Your task to perform on an android device: Go to privacy settings Image 0: 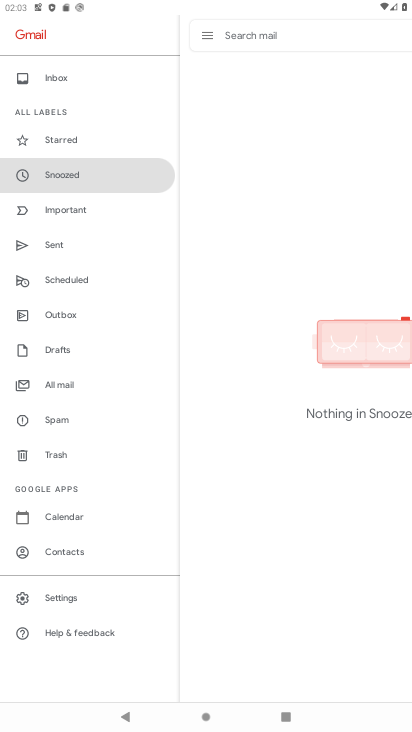
Step 0: press home button
Your task to perform on an android device: Go to privacy settings Image 1: 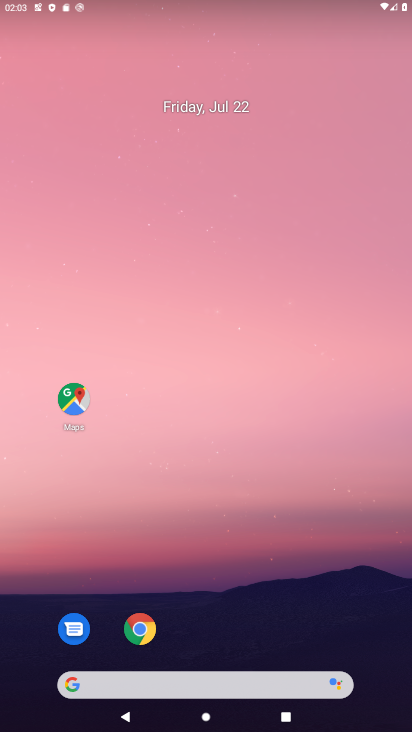
Step 1: drag from (53, 502) to (216, 131)
Your task to perform on an android device: Go to privacy settings Image 2: 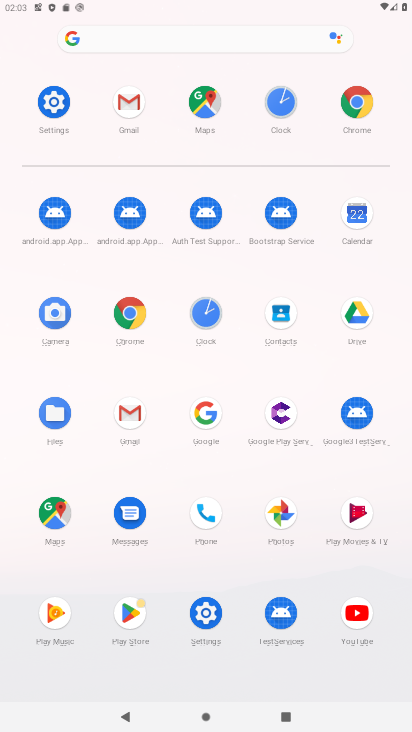
Step 2: click (51, 102)
Your task to perform on an android device: Go to privacy settings Image 3: 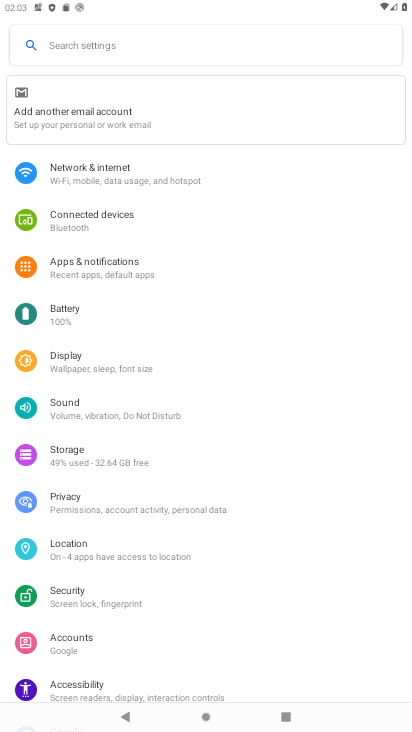
Step 3: click (82, 494)
Your task to perform on an android device: Go to privacy settings Image 4: 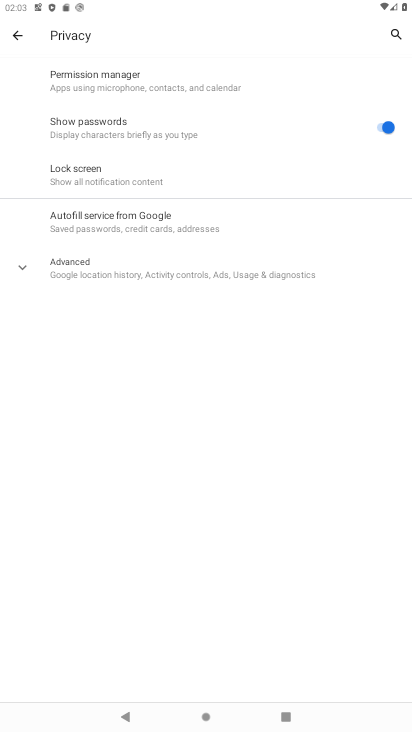
Step 4: task complete